Your task to perform on an android device: turn on sleep mode Image 0: 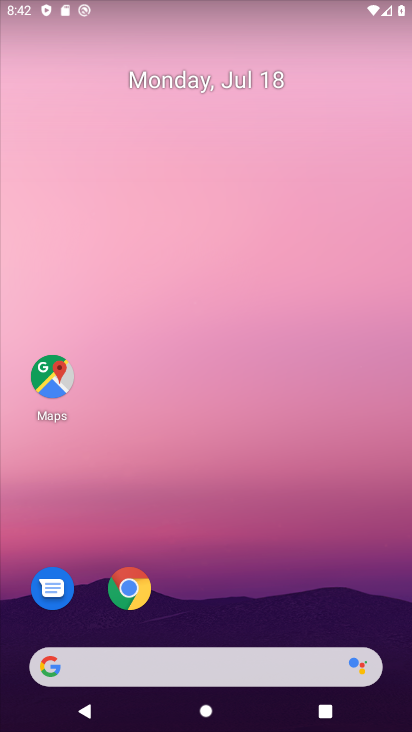
Step 0: press home button
Your task to perform on an android device: turn on sleep mode Image 1: 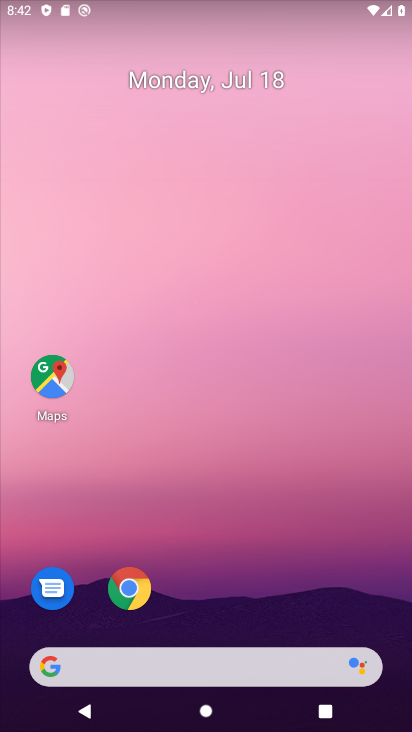
Step 1: drag from (185, 628) to (261, 238)
Your task to perform on an android device: turn on sleep mode Image 2: 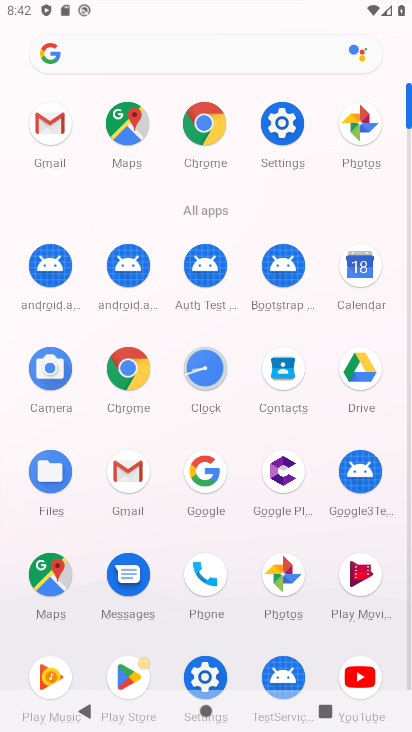
Step 2: click (190, 670)
Your task to perform on an android device: turn on sleep mode Image 3: 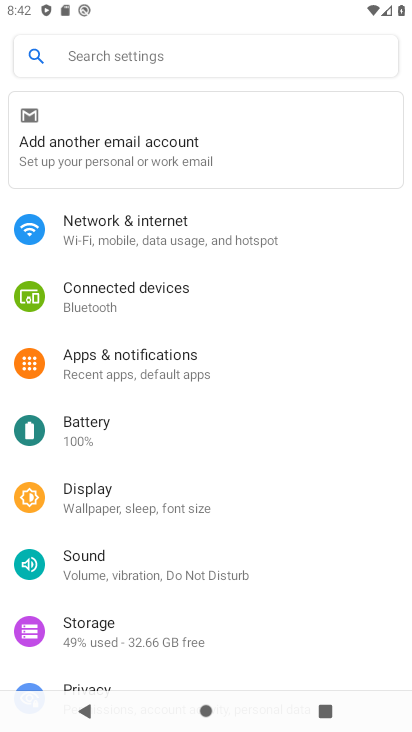
Step 3: click (81, 480)
Your task to perform on an android device: turn on sleep mode Image 4: 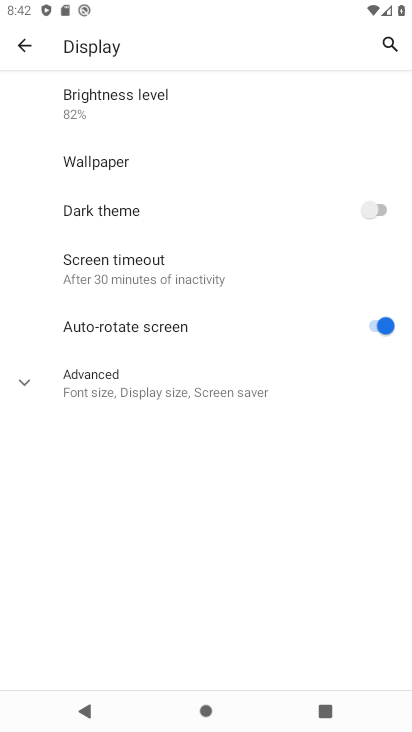
Step 4: task complete